Your task to perform on an android device: Go to ESPN.com Image 0: 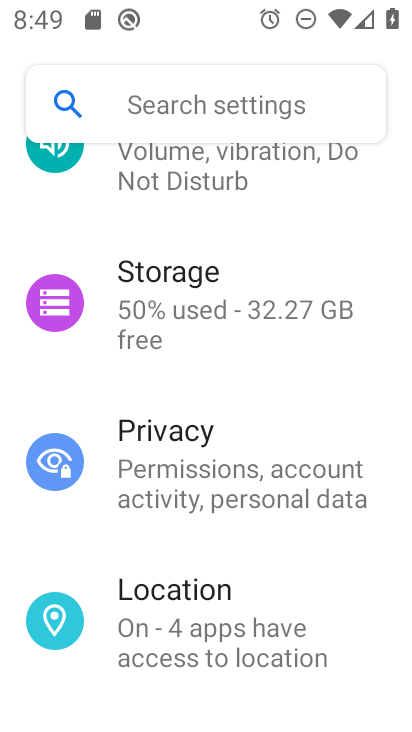
Step 0: press home button
Your task to perform on an android device: Go to ESPN.com Image 1: 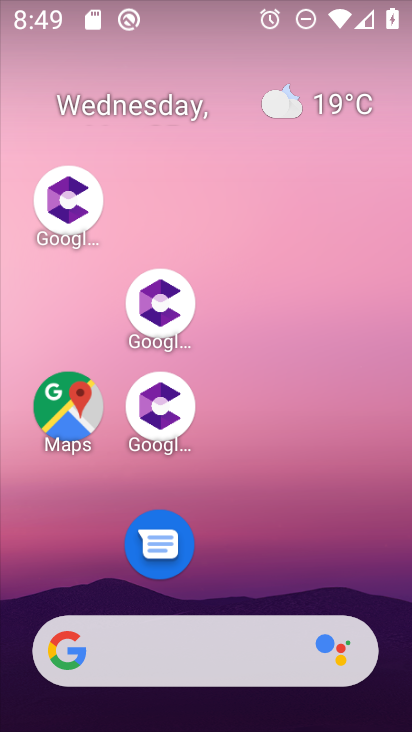
Step 1: drag from (281, 506) to (224, 43)
Your task to perform on an android device: Go to ESPN.com Image 2: 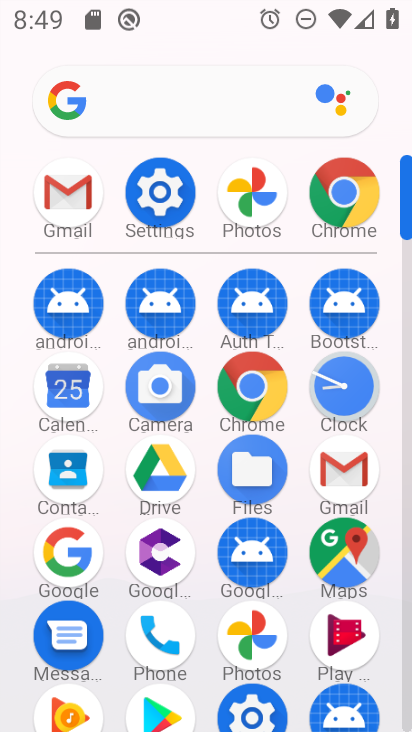
Step 2: click (339, 193)
Your task to perform on an android device: Go to ESPN.com Image 3: 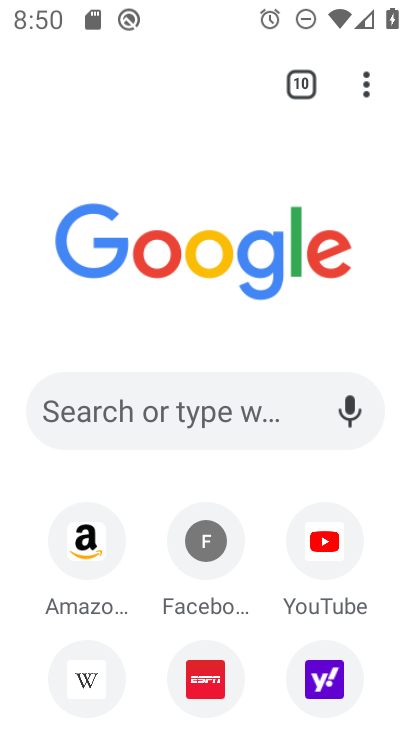
Step 3: drag from (151, 652) to (133, 332)
Your task to perform on an android device: Go to ESPN.com Image 4: 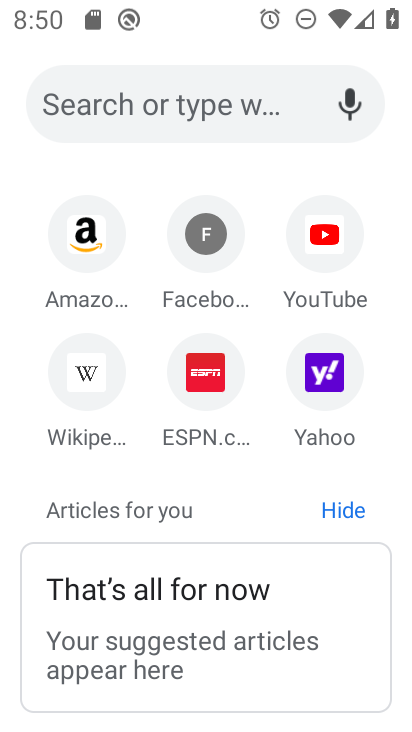
Step 4: click (199, 388)
Your task to perform on an android device: Go to ESPN.com Image 5: 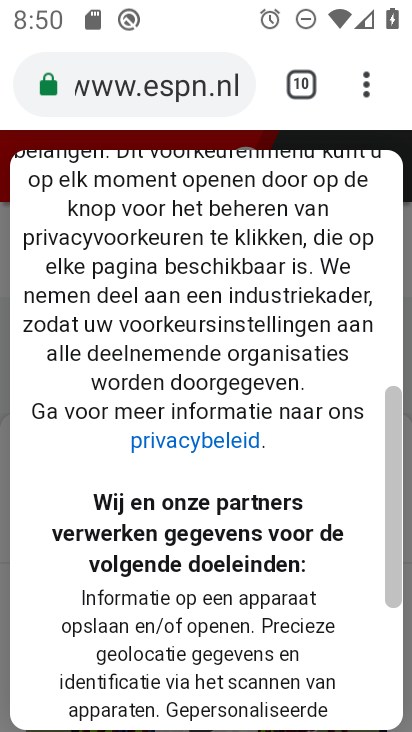
Step 5: task complete